Your task to perform on an android device: open app "VLC for Android" (install if not already installed) and enter user name: "Yves@outlook.com" and password: "internally" Image 0: 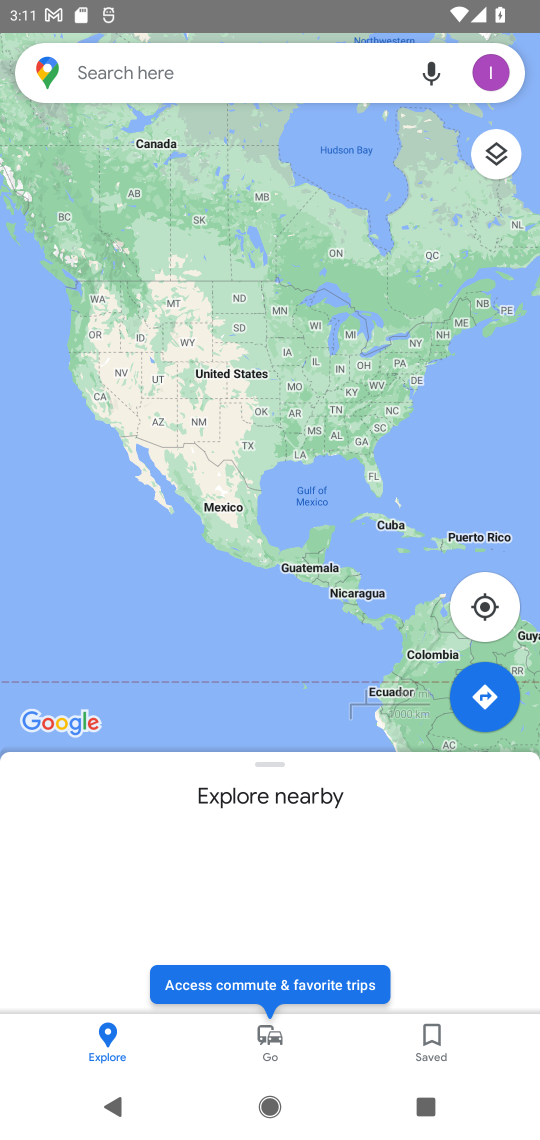
Step 0: press home button
Your task to perform on an android device: open app "VLC for Android" (install if not already installed) and enter user name: "Yves@outlook.com" and password: "internally" Image 1: 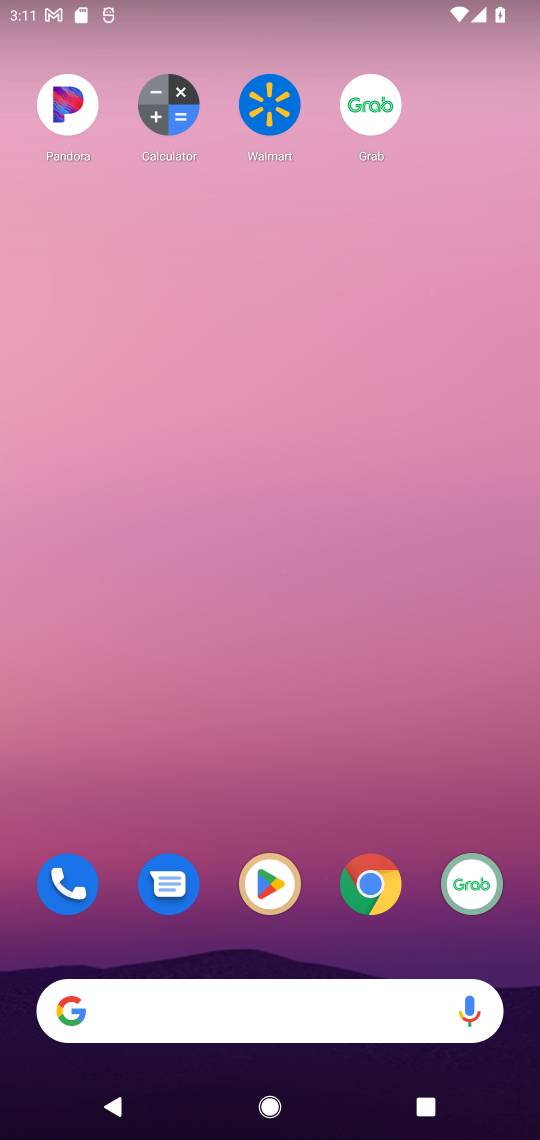
Step 1: click (263, 871)
Your task to perform on an android device: open app "VLC for Android" (install if not already installed) and enter user name: "Yves@outlook.com" and password: "internally" Image 2: 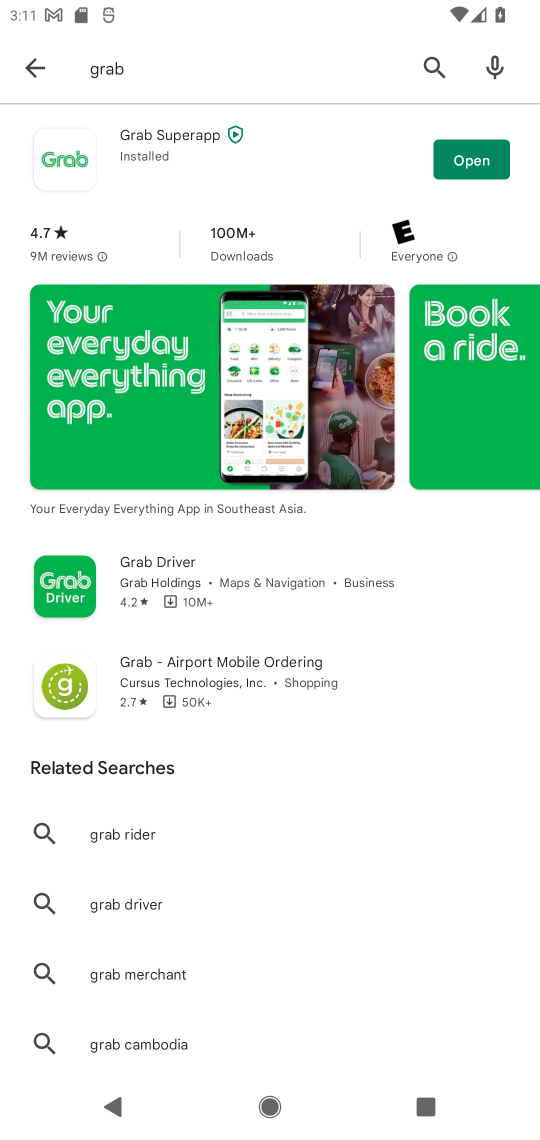
Step 2: click (155, 63)
Your task to perform on an android device: open app "VLC for Android" (install if not already installed) and enter user name: "Yves@outlook.com" and password: "internally" Image 3: 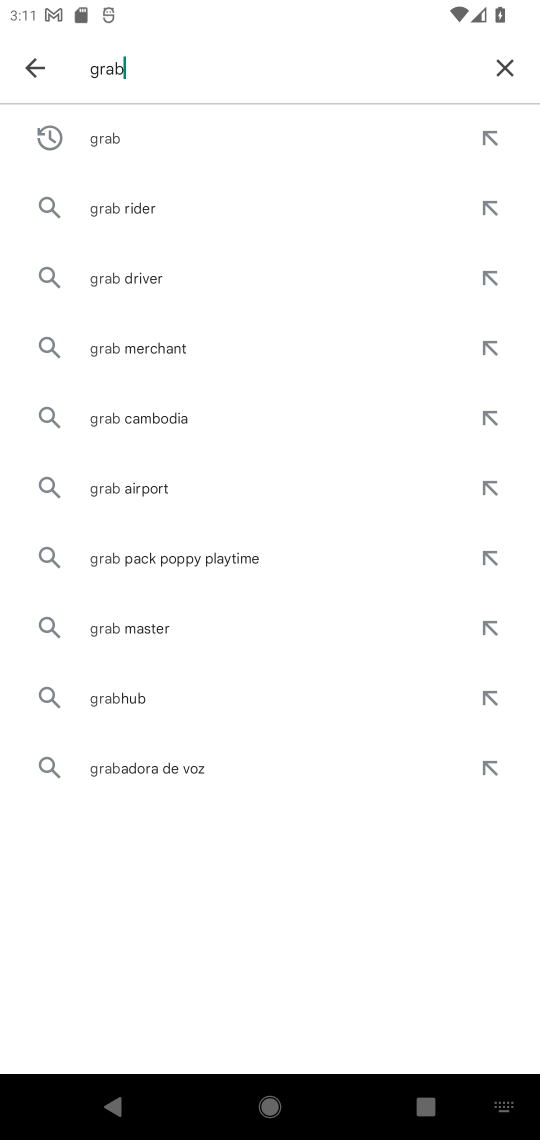
Step 3: click (493, 64)
Your task to perform on an android device: open app "VLC for Android" (install if not already installed) and enter user name: "Yves@outlook.com" and password: "internally" Image 4: 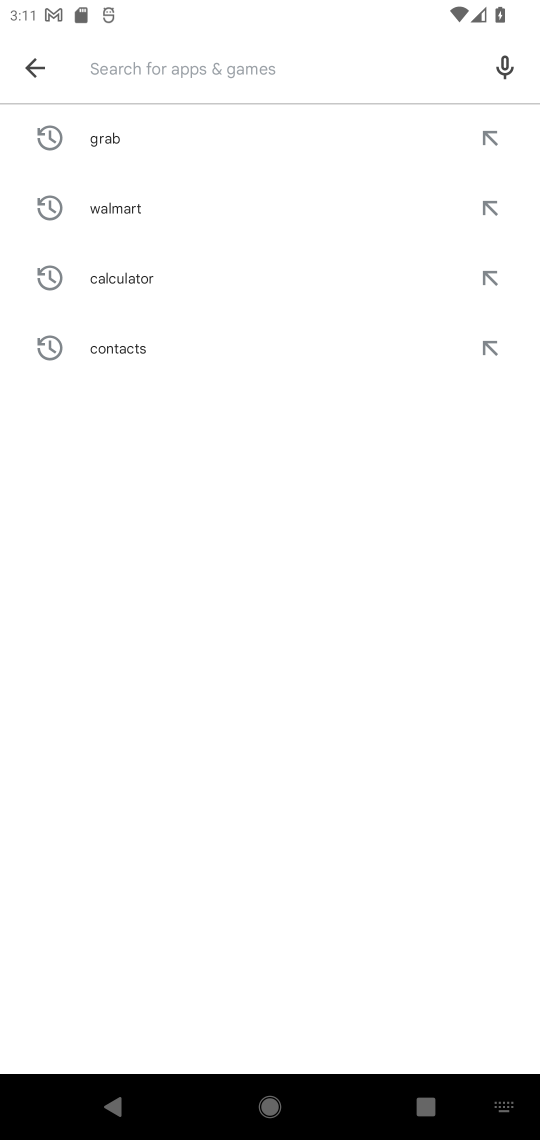
Step 4: type "VLC "
Your task to perform on an android device: open app "VLC for Android" (install if not already installed) and enter user name: "Yves@outlook.com" and password: "internally" Image 5: 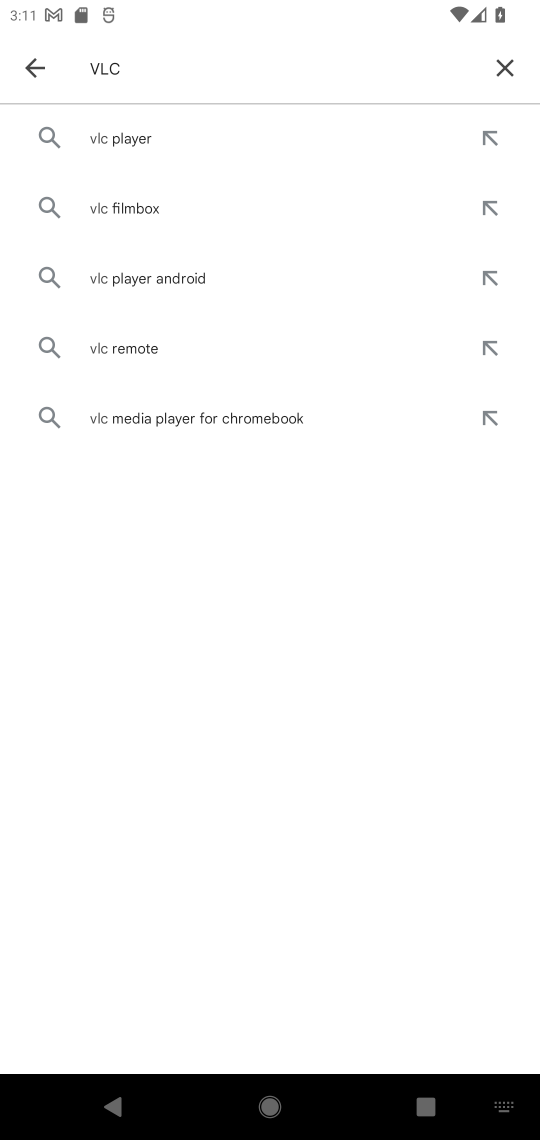
Step 5: click (144, 130)
Your task to perform on an android device: open app "VLC for Android" (install if not already installed) and enter user name: "Yves@outlook.com" and password: "internally" Image 6: 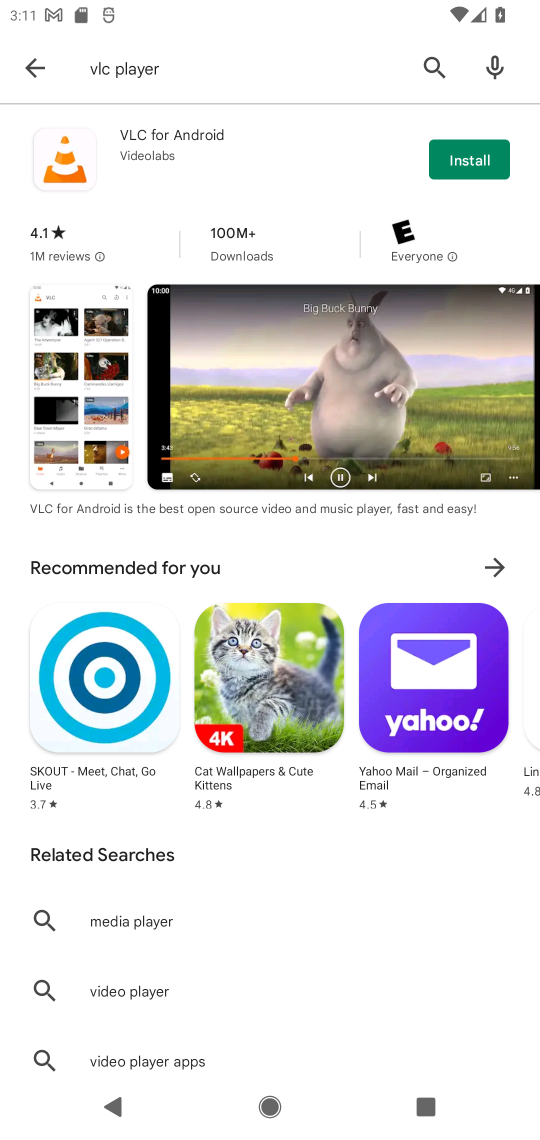
Step 6: click (476, 159)
Your task to perform on an android device: open app "VLC for Android" (install if not already installed) and enter user name: "Yves@outlook.com" and password: "internally" Image 7: 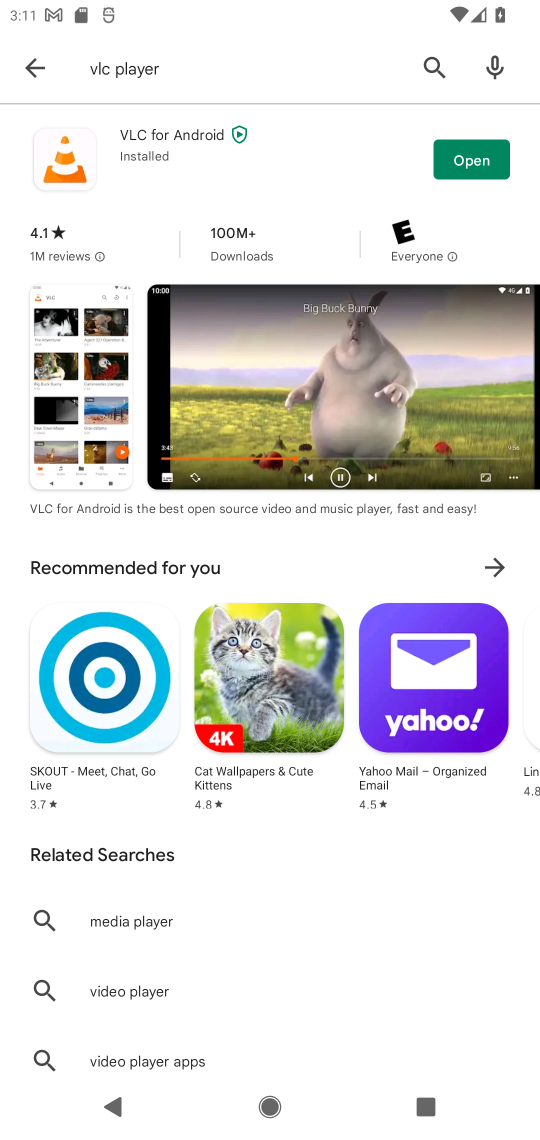
Step 7: click (453, 159)
Your task to perform on an android device: open app "VLC for Android" (install if not already installed) and enter user name: "Yves@outlook.com" and password: "internally" Image 8: 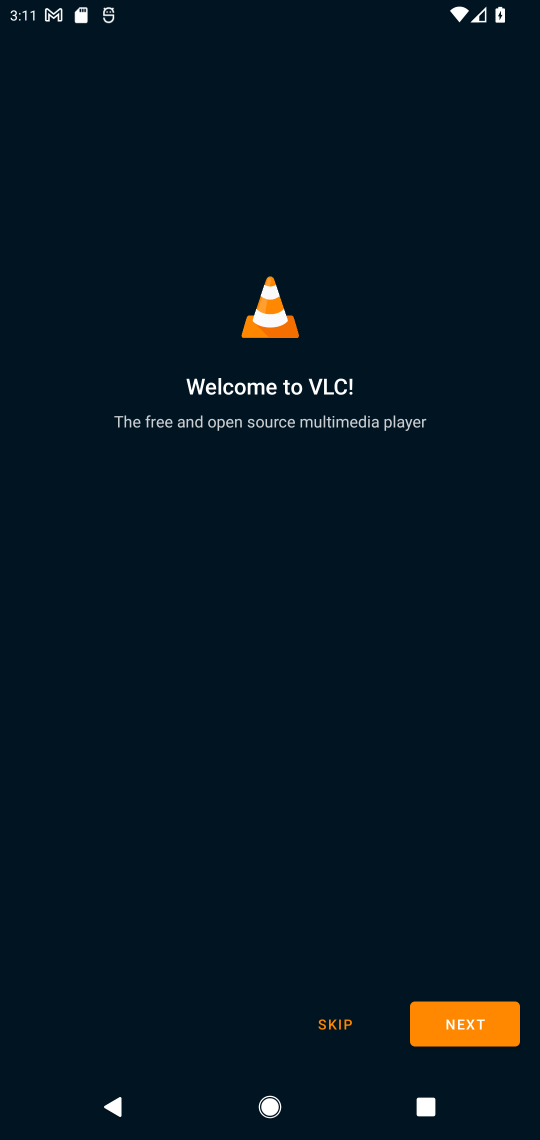
Step 8: click (469, 1021)
Your task to perform on an android device: open app "VLC for Android" (install if not already installed) and enter user name: "Yves@outlook.com" and password: "internally" Image 9: 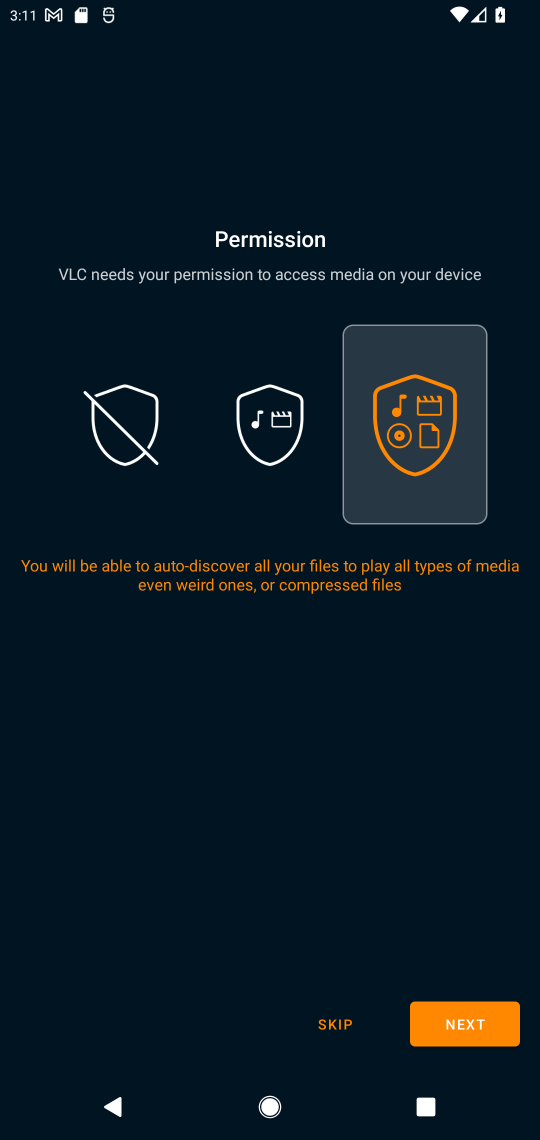
Step 9: click (470, 1026)
Your task to perform on an android device: open app "VLC for Android" (install if not already installed) and enter user name: "Yves@outlook.com" and password: "internally" Image 10: 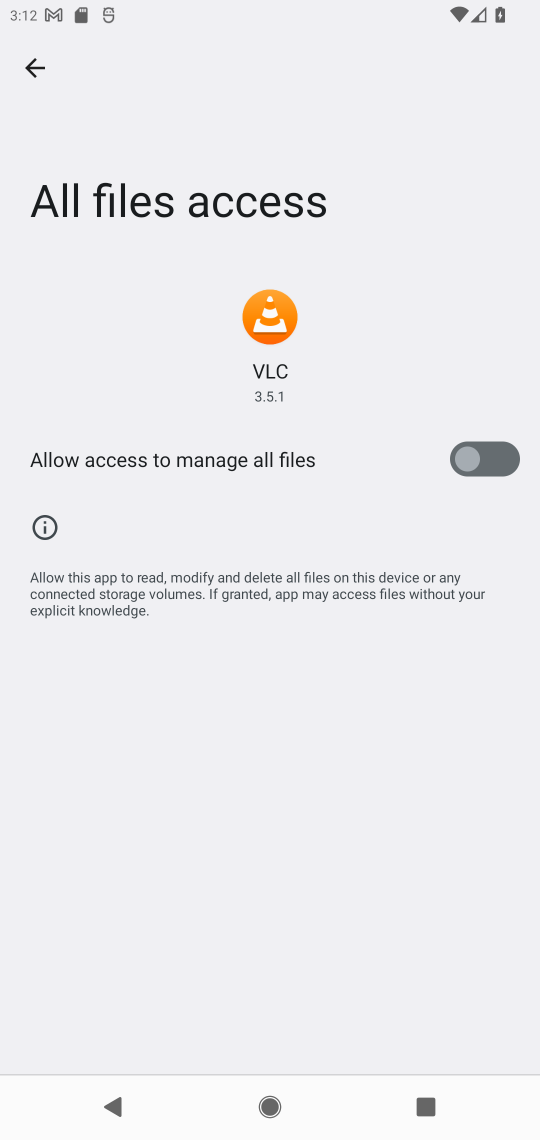
Step 10: click (504, 450)
Your task to perform on an android device: open app "VLC for Android" (install if not already installed) and enter user name: "Yves@outlook.com" and password: "internally" Image 11: 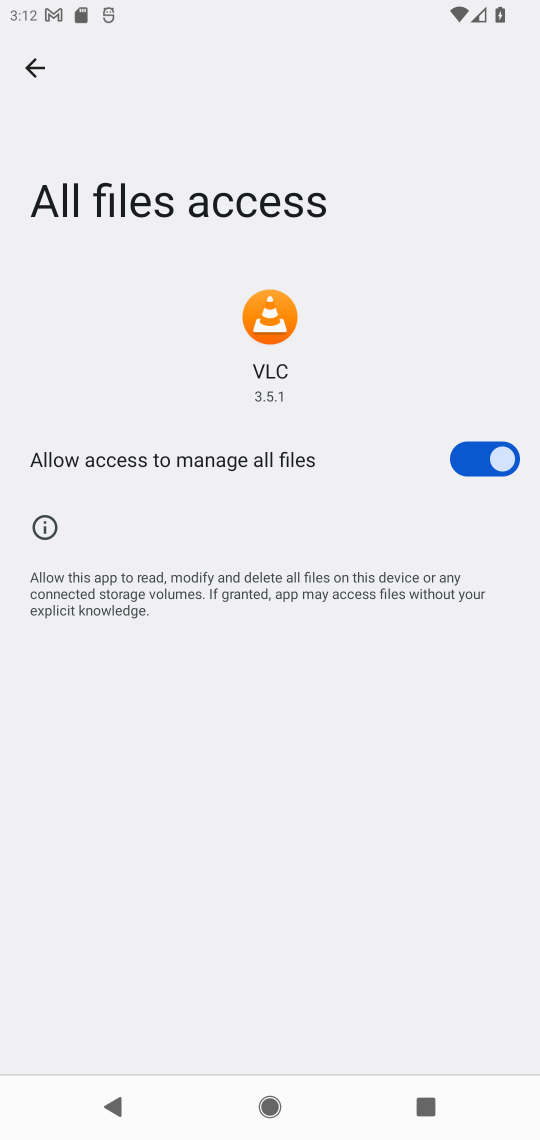
Step 11: press back button
Your task to perform on an android device: open app "VLC for Android" (install if not already installed) and enter user name: "Yves@outlook.com" and password: "internally" Image 12: 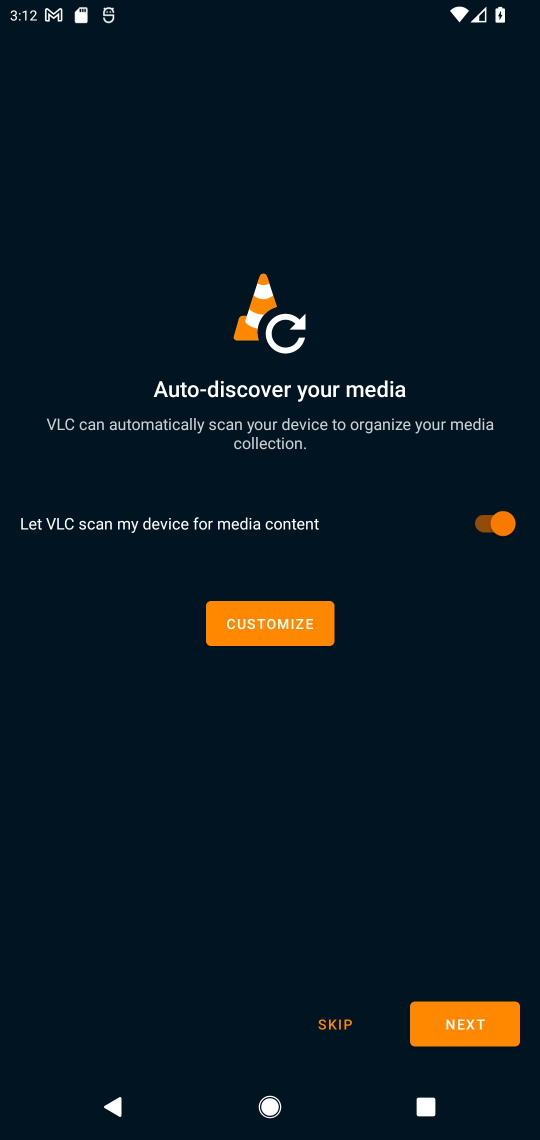
Step 12: click (480, 1002)
Your task to perform on an android device: open app "VLC for Android" (install if not already installed) and enter user name: "Yves@outlook.com" and password: "internally" Image 13: 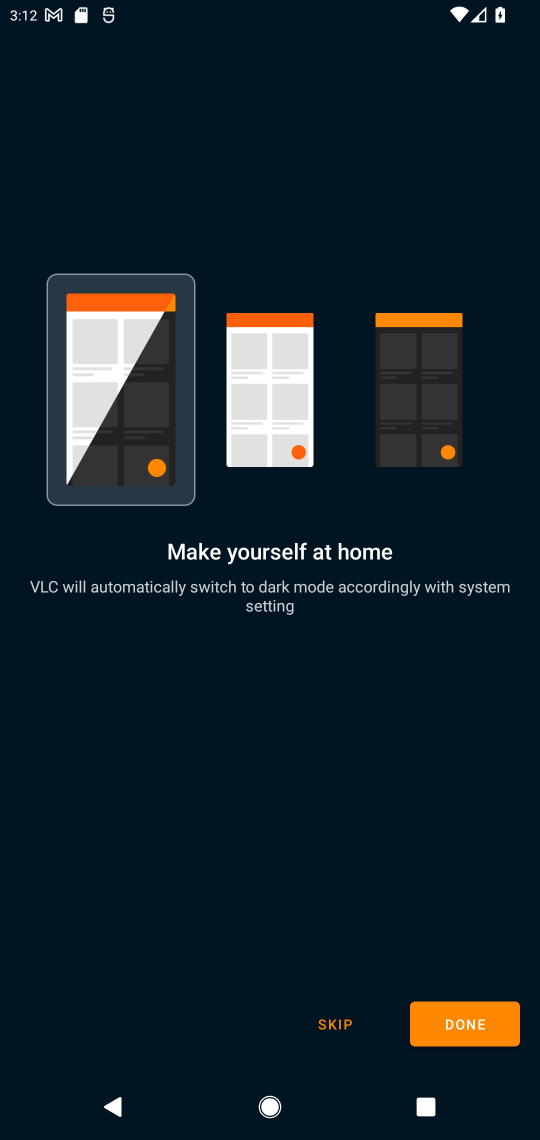
Step 13: click (488, 1051)
Your task to perform on an android device: open app "VLC for Android" (install if not already installed) and enter user name: "Yves@outlook.com" and password: "internally" Image 14: 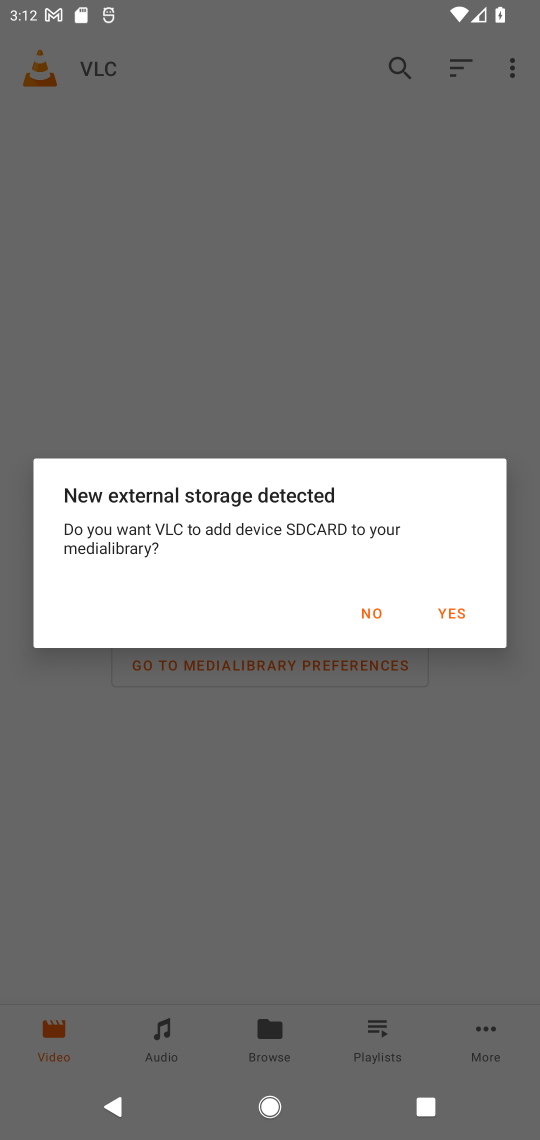
Step 14: click (444, 608)
Your task to perform on an android device: open app "VLC for Android" (install if not already installed) and enter user name: "Yves@outlook.com" and password: "internally" Image 15: 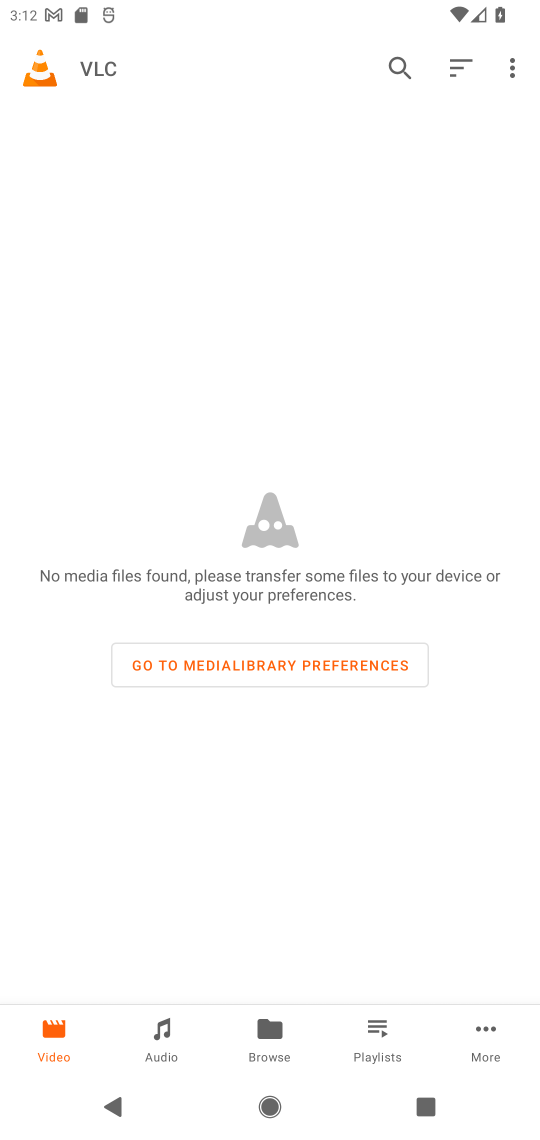
Step 15: click (488, 1029)
Your task to perform on an android device: open app "VLC for Android" (install if not already installed) and enter user name: "Yves@outlook.com" and password: "internally" Image 16: 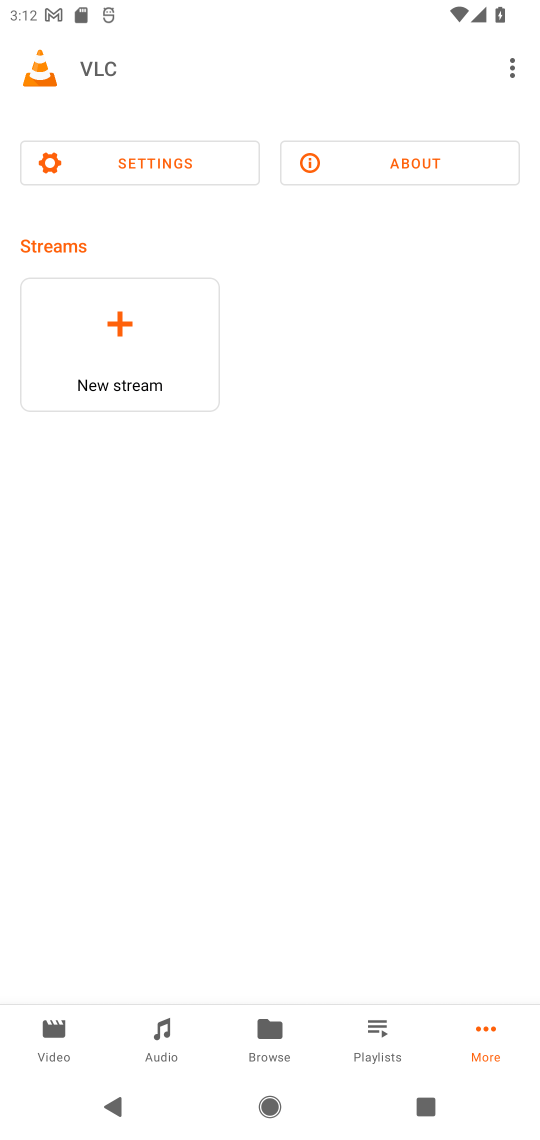
Step 16: click (203, 162)
Your task to perform on an android device: open app "VLC for Android" (install if not already installed) and enter user name: "Yves@outlook.com" and password: "internally" Image 17: 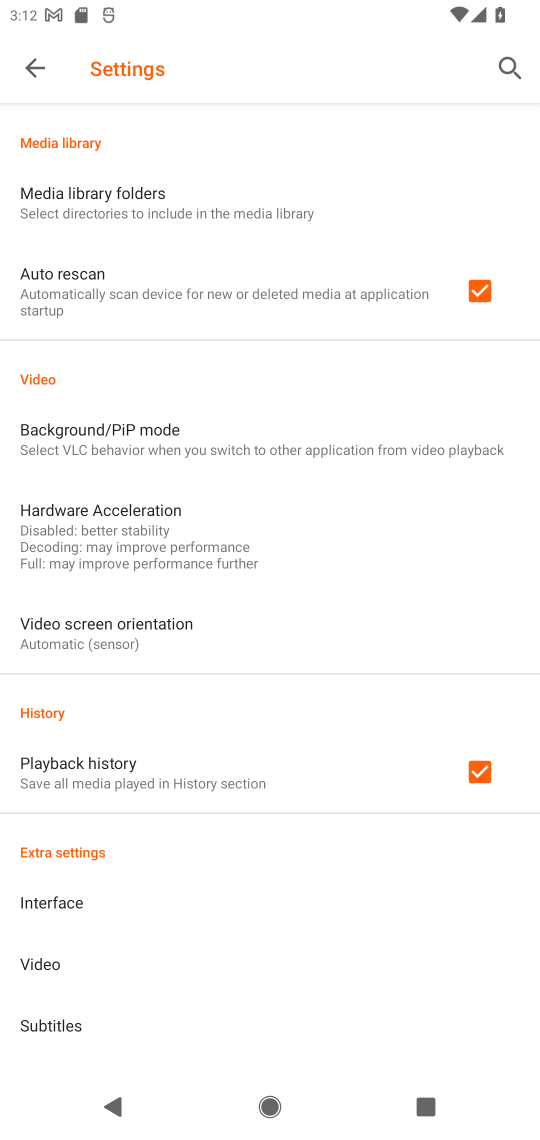
Step 17: task complete